Your task to perform on an android device: Open wifi settings Image 0: 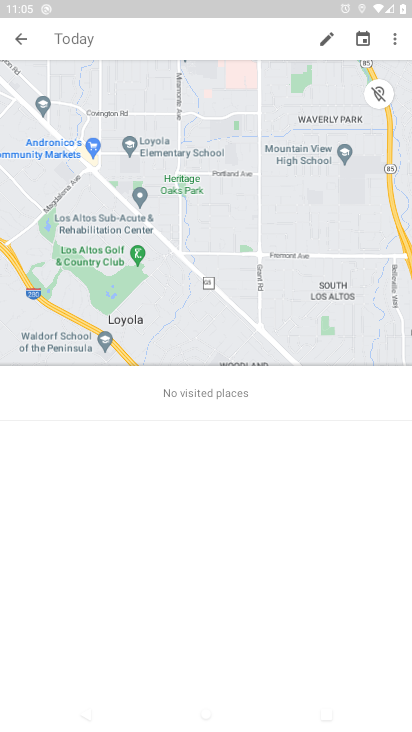
Step 0: press home button
Your task to perform on an android device: Open wifi settings Image 1: 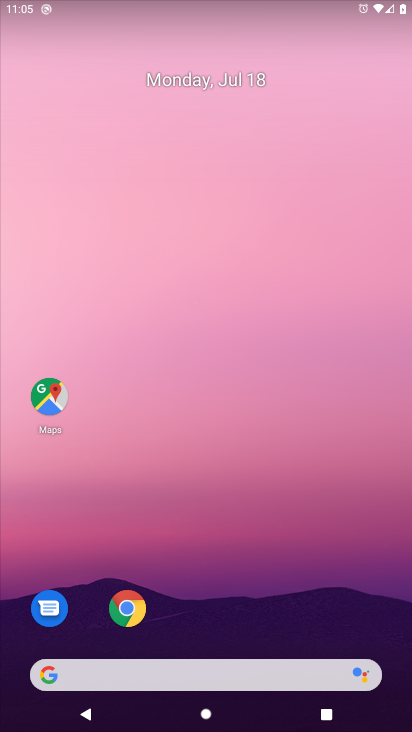
Step 1: drag from (14, 691) to (184, 155)
Your task to perform on an android device: Open wifi settings Image 2: 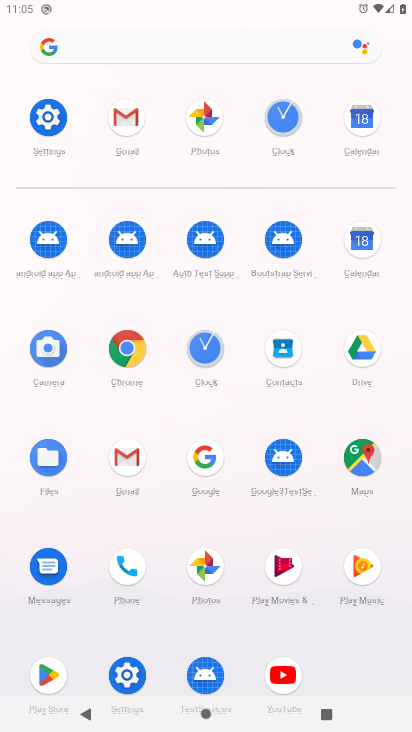
Step 2: click (131, 682)
Your task to perform on an android device: Open wifi settings Image 3: 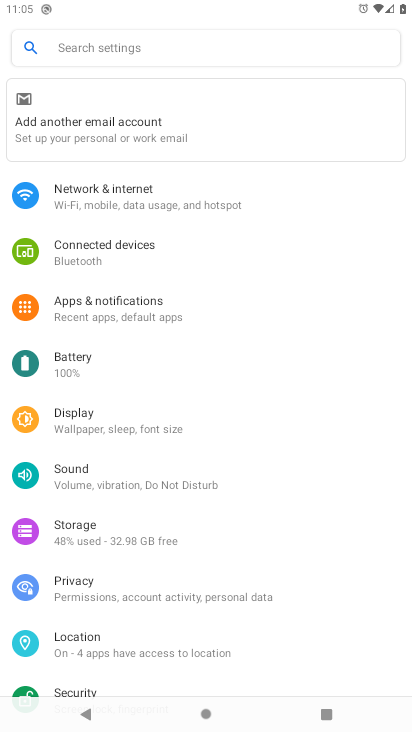
Step 3: click (77, 171)
Your task to perform on an android device: Open wifi settings Image 4: 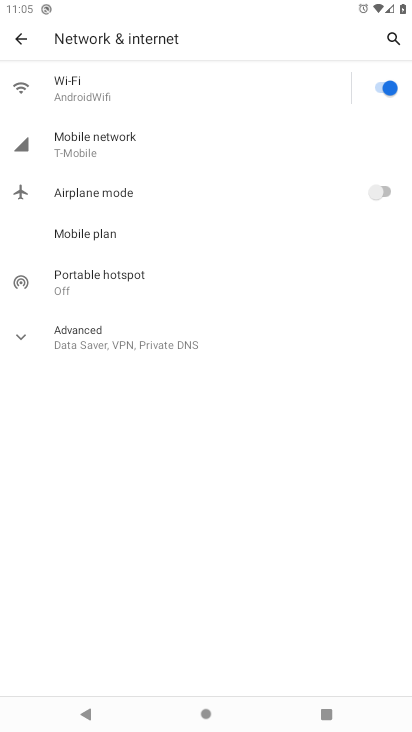
Step 4: click (167, 82)
Your task to perform on an android device: Open wifi settings Image 5: 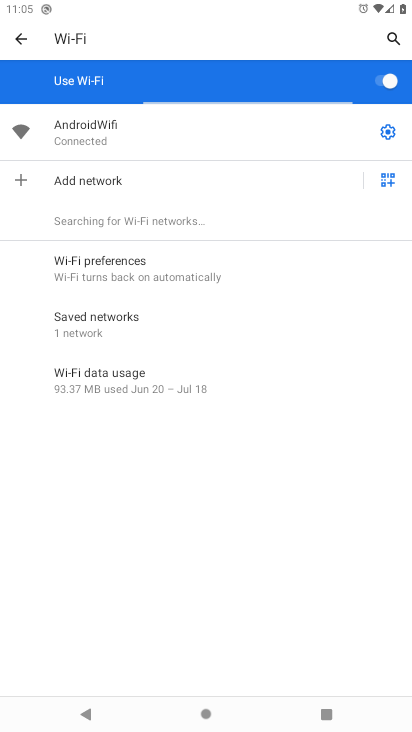
Step 5: task complete